Your task to perform on an android device: Open Android settings Image 0: 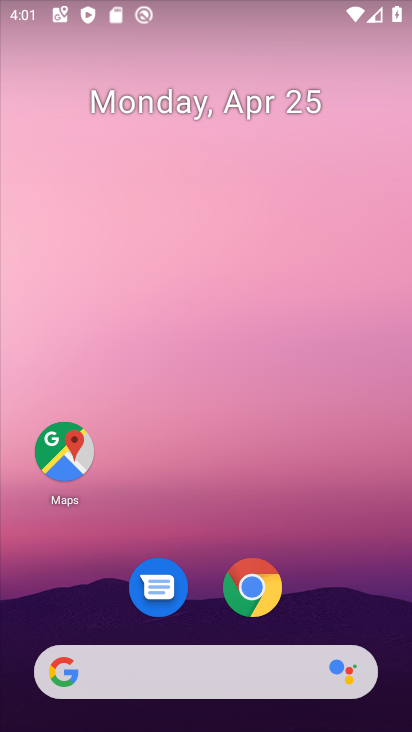
Step 0: drag from (331, 600) to (362, 55)
Your task to perform on an android device: Open Android settings Image 1: 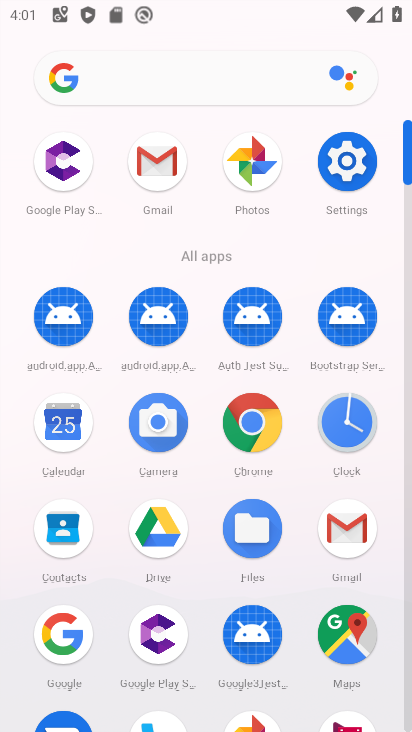
Step 1: click (341, 164)
Your task to perform on an android device: Open Android settings Image 2: 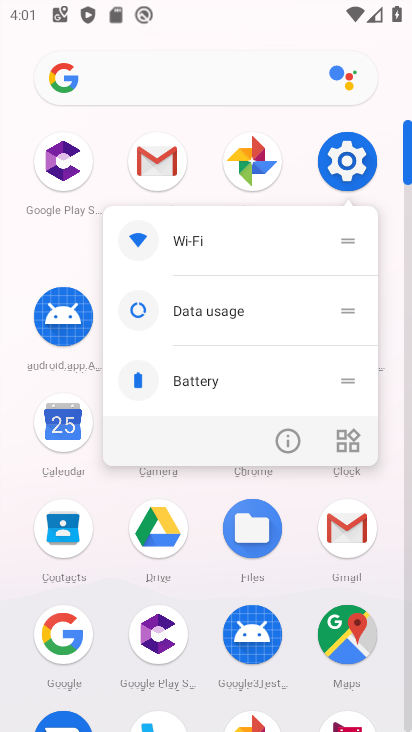
Step 2: click (341, 164)
Your task to perform on an android device: Open Android settings Image 3: 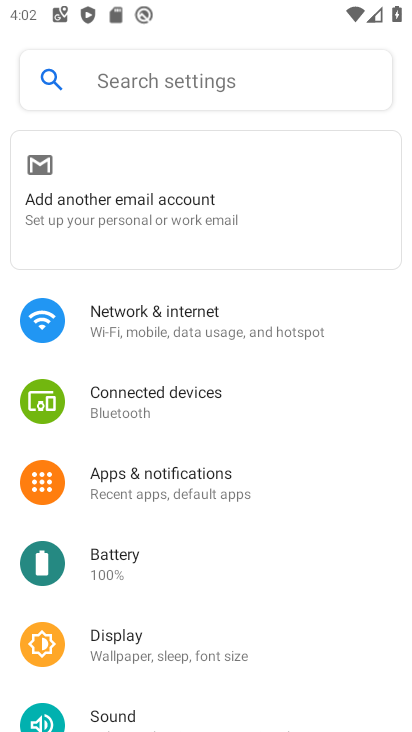
Step 3: task complete